Your task to perform on an android device: turn pop-ups on in chrome Image 0: 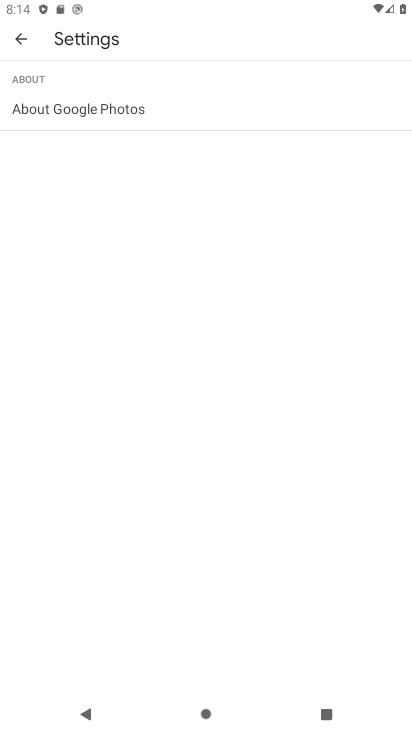
Step 0: press home button
Your task to perform on an android device: turn pop-ups on in chrome Image 1: 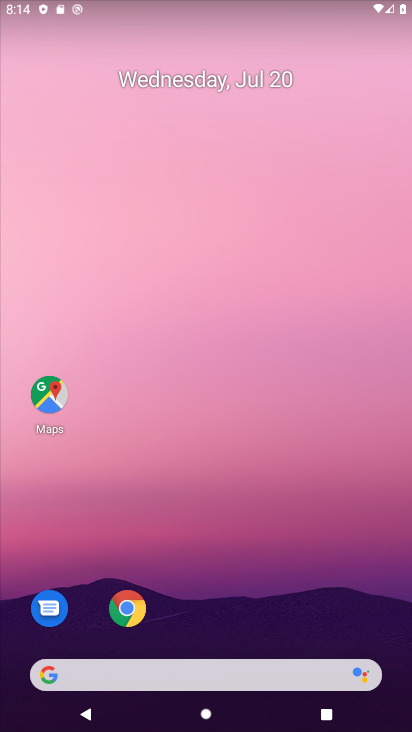
Step 1: drag from (203, 614) to (213, 68)
Your task to perform on an android device: turn pop-ups on in chrome Image 2: 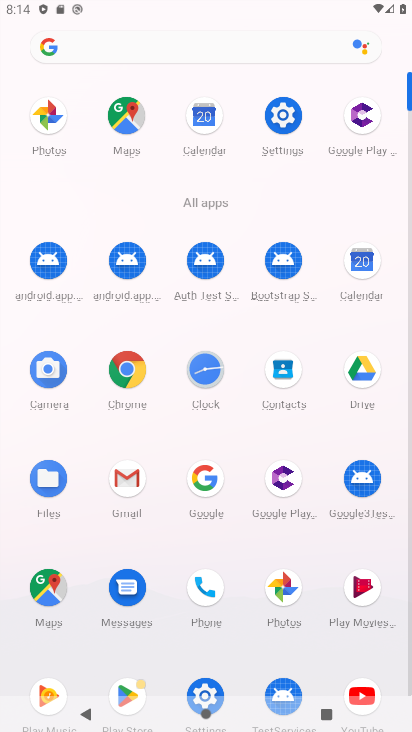
Step 2: click (112, 366)
Your task to perform on an android device: turn pop-ups on in chrome Image 3: 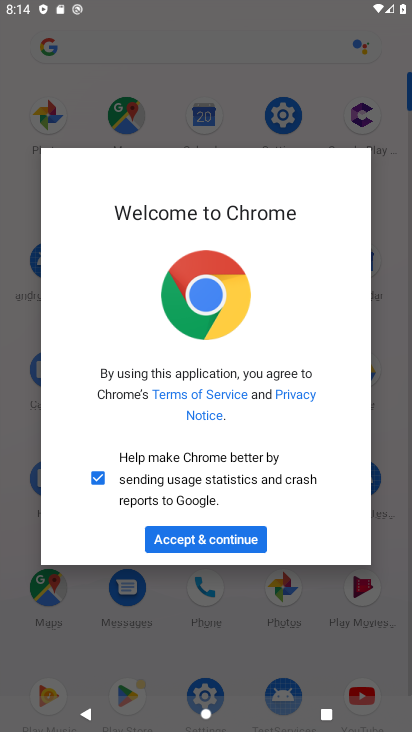
Step 3: click (178, 549)
Your task to perform on an android device: turn pop-ups on in chrome Image 4: 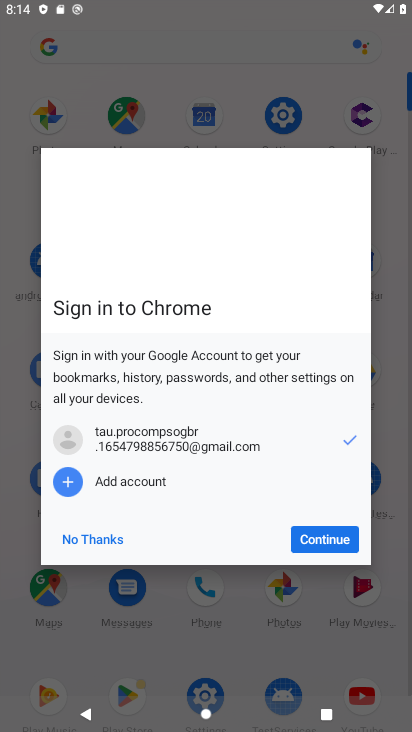
Step 4: click (85, 535)
Your task to perform on an android device: turn pop-ups on in chrome Image 5: 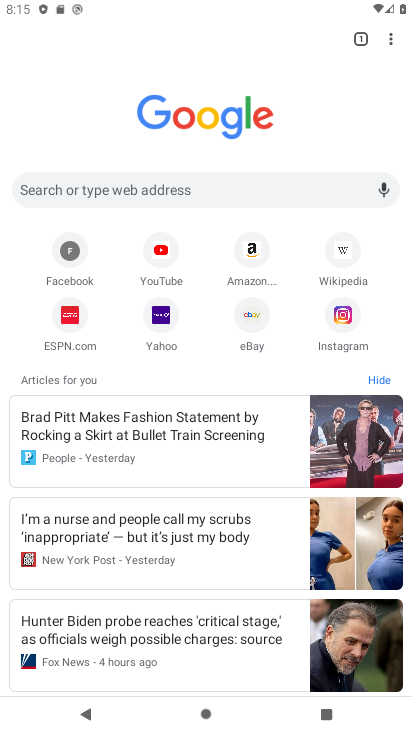
Step 5: drag from (390, 32) to (237, 333)
Your task to perform on an android device: turn pop-ups on in chrome Image 6: 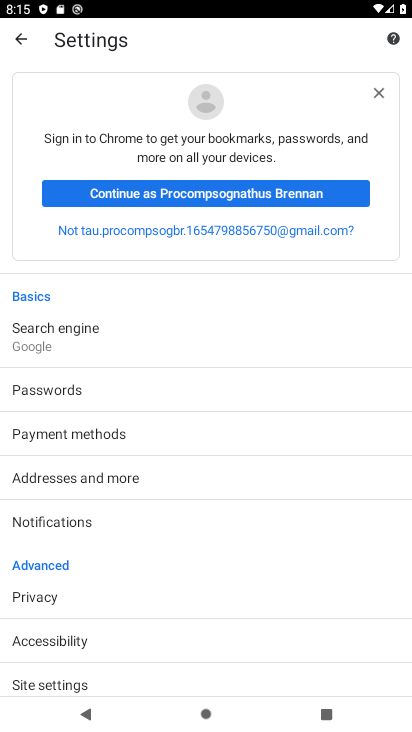
Step 6: drag from (81, 634) to (70, 282)
Your task to perform on an android device: turn pop-ups on in chrome Image 7: 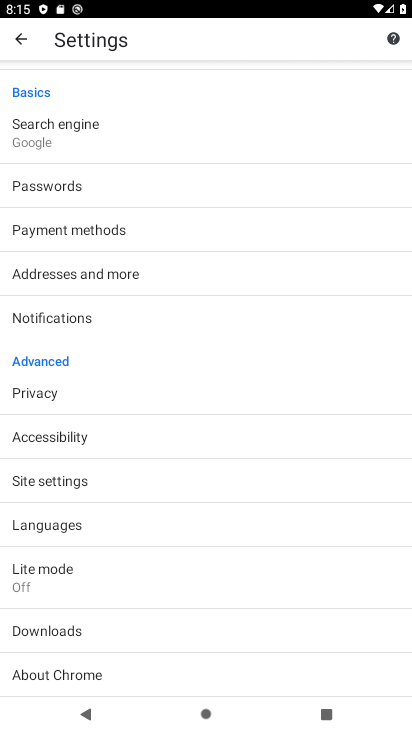
Step 7: click (13, 497)
Your task to perform on an android device: turn pop-ups on in chrome Image 8: 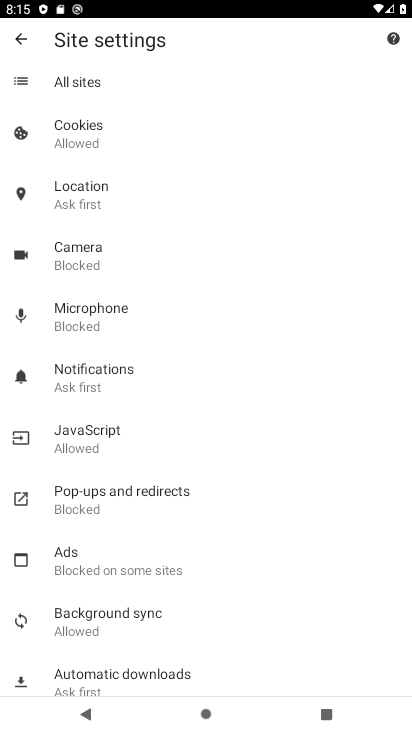
Step 8: click (102, 508)
Your task to perform on an android device: turn pop-ups on in chrome Image 9: 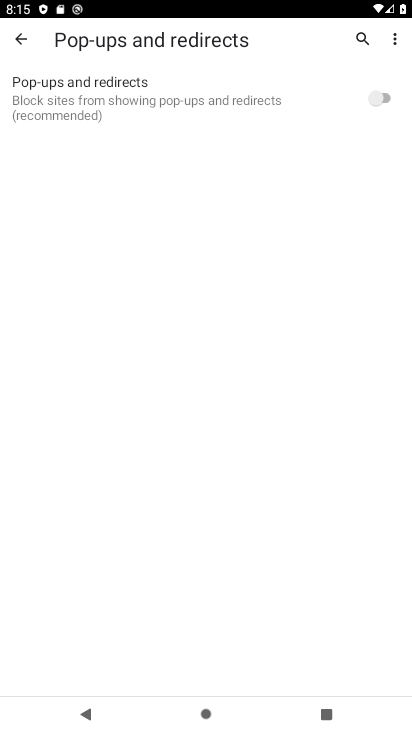
Step 9: click (380, 103)
Your task to perform on an android device: turn pop-ups on in chrome Image 10: 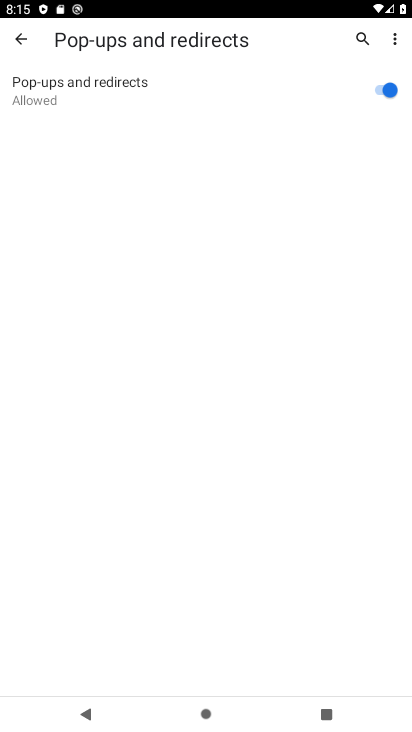
Step 10: task complete